Your task to perform on an android device: turn off picture-in-picture Image 0: 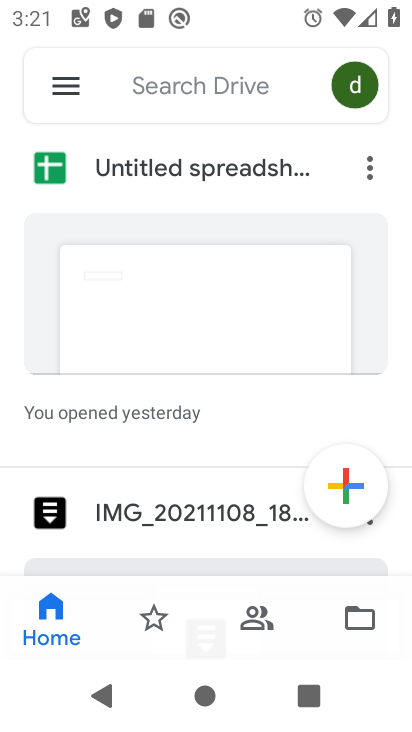
Step 0: press home button
Your task to perform on an android device: turn off picture-in-picture Image 1: 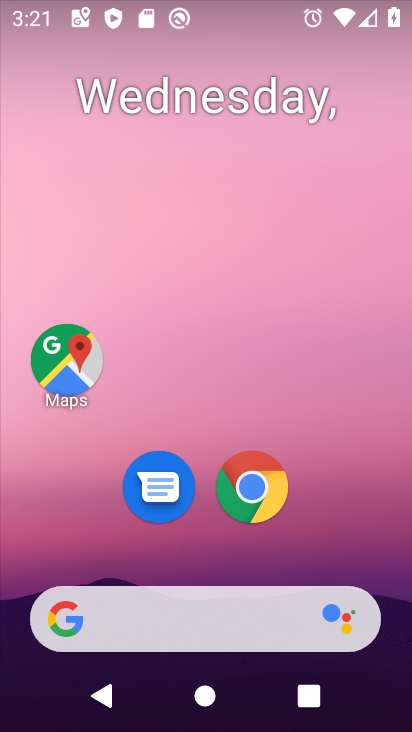
Step 1: drag from (363, 550) to (334, 134)
Your task to perform on an android device: turn off picture-in-picture Image 2: 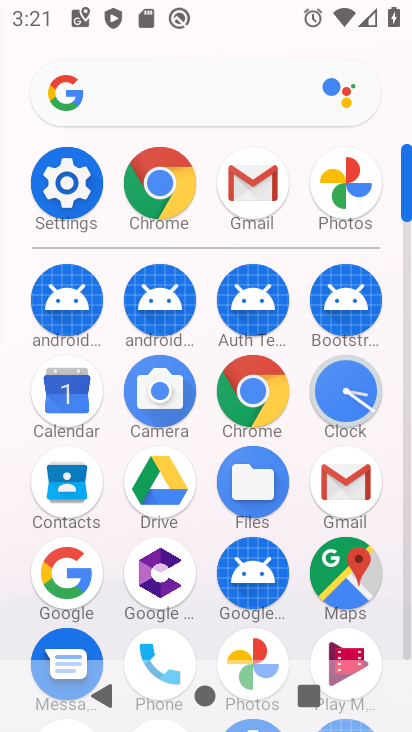
Step 2: click (72, 204)
Your task to perform on an android device: turn off picture-in-picture Image 3: 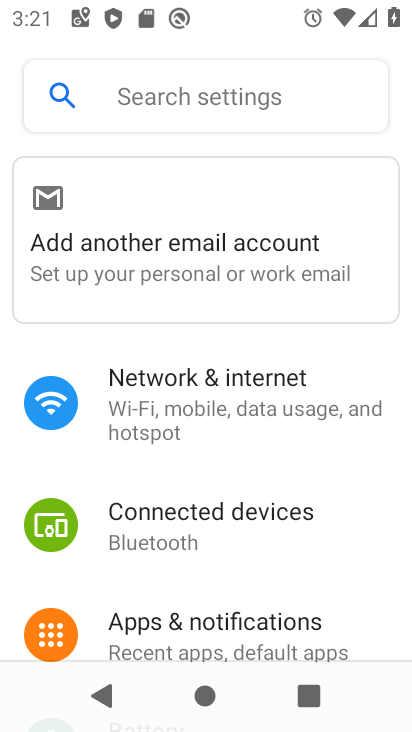
Step 3: drag from (358, 495) to (348, 349)
Your task to perform on an android device: turn off picture-in-picture Image 4: 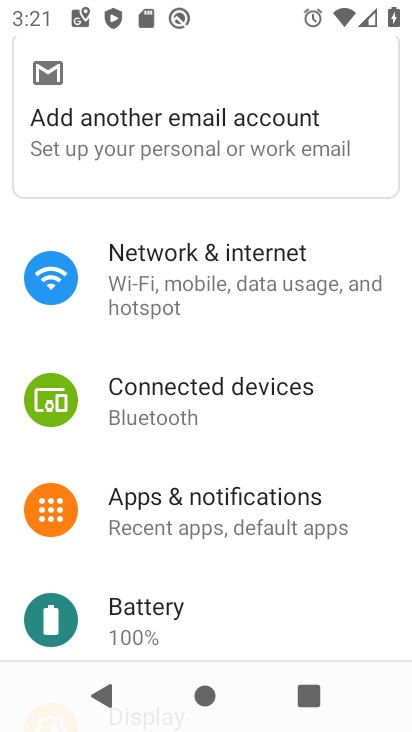
Step 4: drag from (361, 521) to (350, 377)
Your task to perform on an android device: turn off picture-in-picture Image 5: 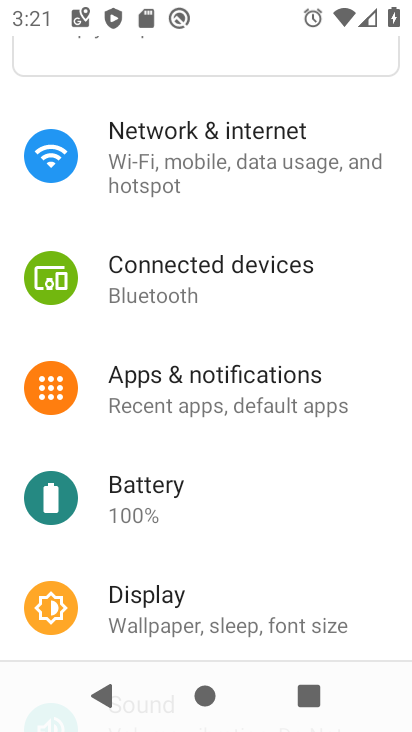
Step 5: drag from (360, 509) to (353, 377)
Your task to perform on an android device: turn off picture-in-picture Image 6: 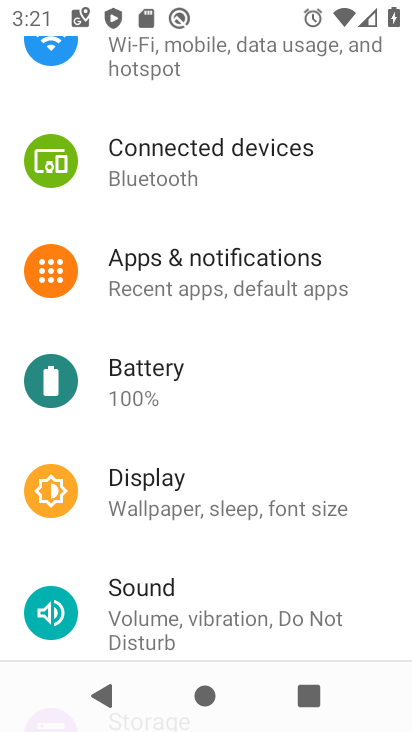
Step 6: drag from (371, 546) to (367, 431)
Your task to perform on an android device: turn off picture-in-picture Image 7: 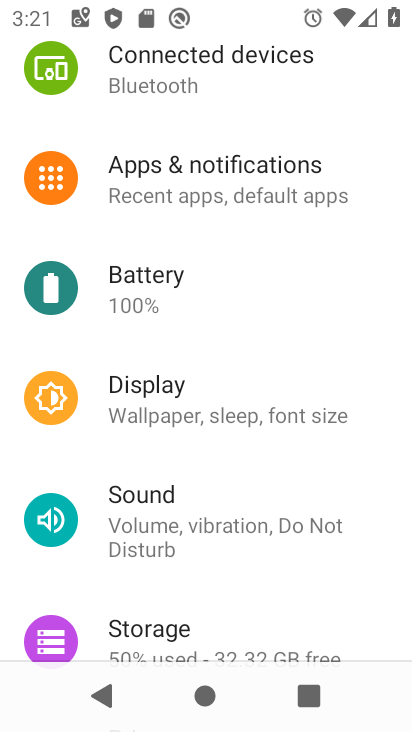
Step 7: drag from (342, 297) to (362, 441)
Your task to perform on an android device: turn off picture-in-picture Image 8: 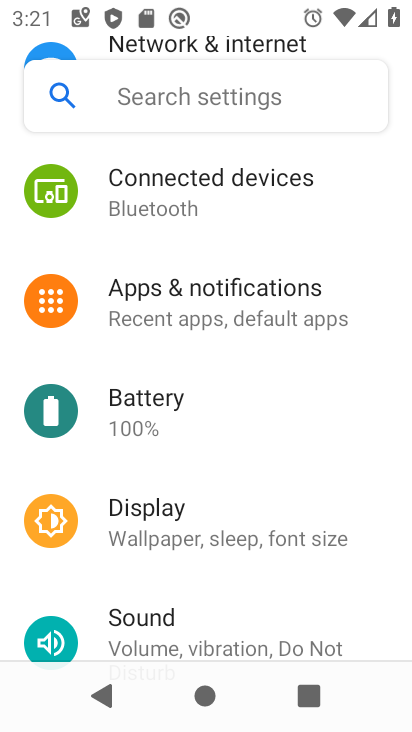
Step 8: drag from (362, 240) to (363, 453)
Your task to perform on an android device: turn off picture-in-picture Image 9: 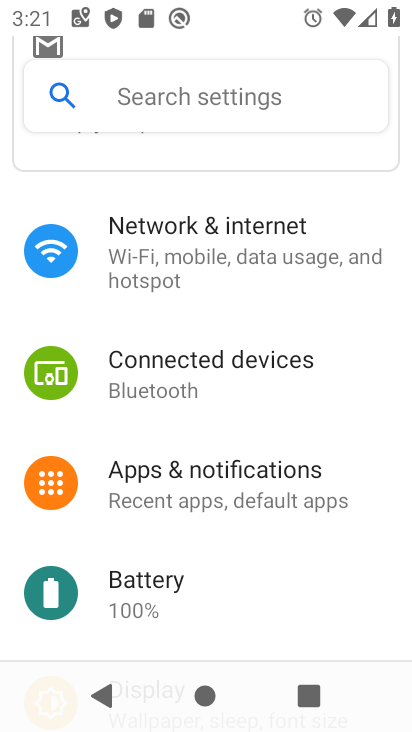
Step 9: click (287, 479)
Your task to perform on an android device: turn off picture-in-picture Image 10: 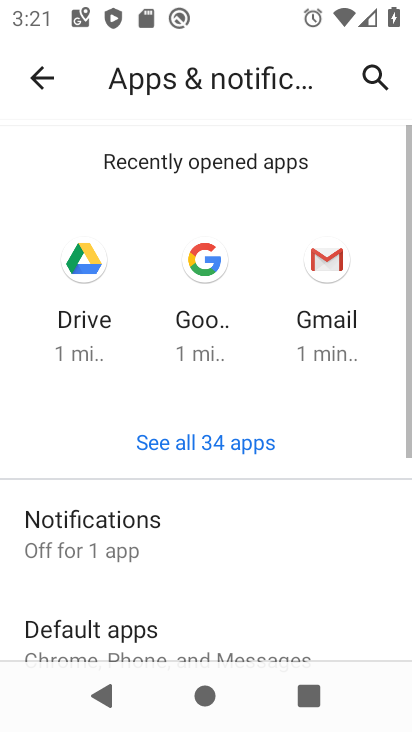
Step 10: drag from (252, 537) to (248, 352)
Your task to perform on an android device: turn off picture-in-picture Image 11: 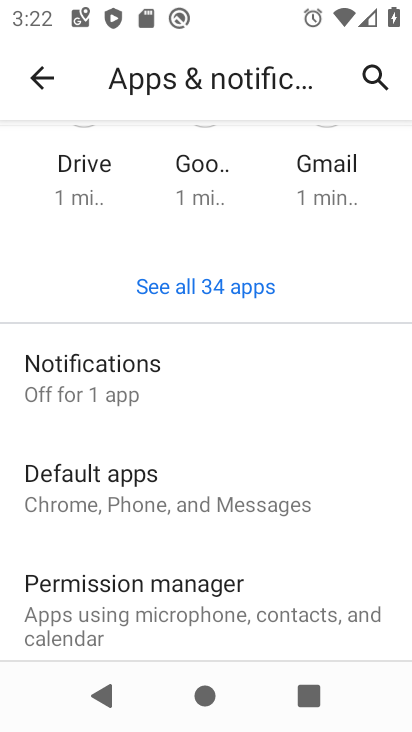
Step 11: drag from (283, 513) to (286, 348)
Your task to perform on an android device: turn off picture-in-picture Image 12: 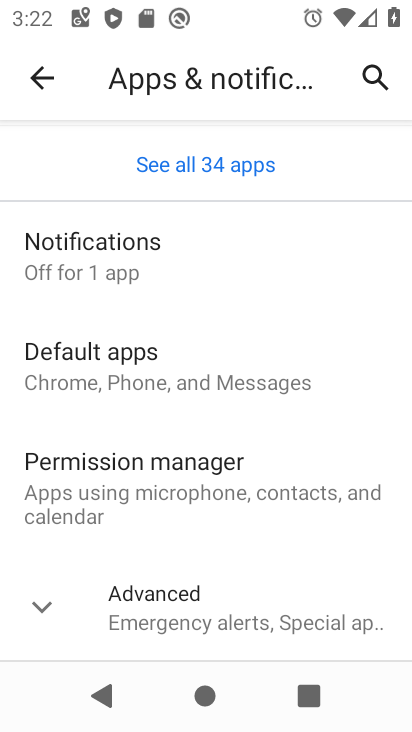
Step 12: click (90, 262)
Your task to perform on an android device: turn off picture-in-picture Image 13: 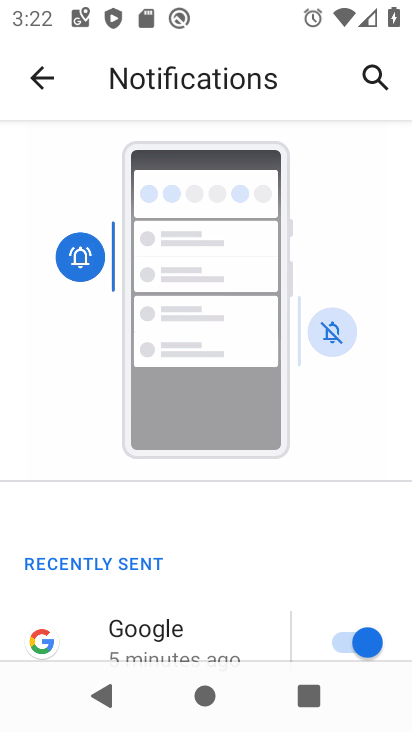
Step 13: drag from (287, 497) to (283, 332)
Your task to perform on an android device: turn off picture-in-picture Image 14: 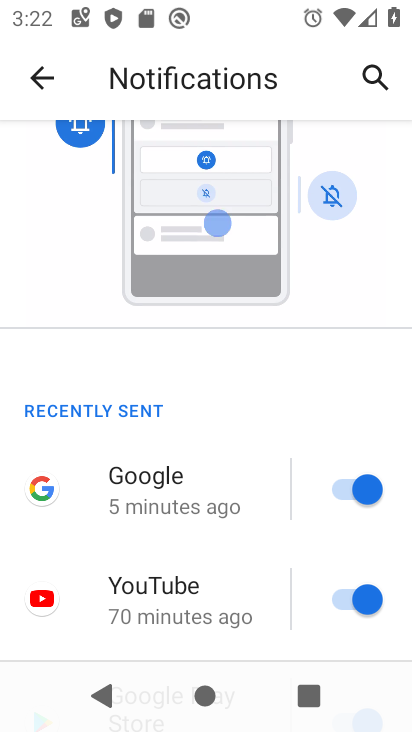
Step 14: drag from (259, 544) to (254, 333)
Your task to perform on an android device: turn off picture-in-picture Image 15: 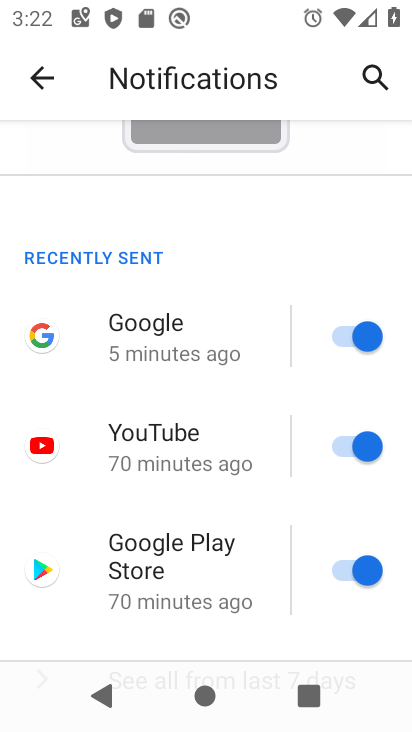
Step 15: drag from (267, 578) to (264, 371)
Your task to perform on an android device: turn off picture-in-picture Image 16: 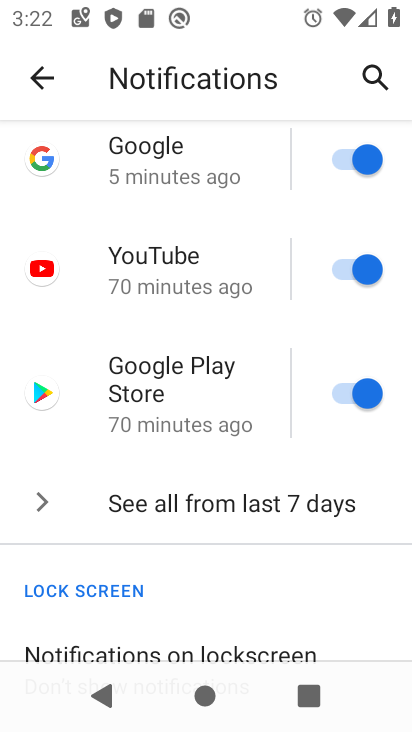
Step 16: drag from (256, 577) to (242, 405)
Your task to perform on an android device: turn off picture-in-picture Image 17: 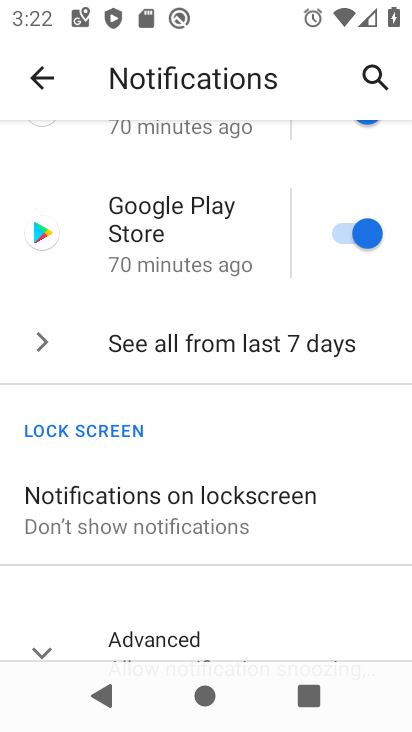
Step 17: drag from (252, 212) to (249, 379)
Your task to perform on an android device: turn off picture-in-picture Image 18: 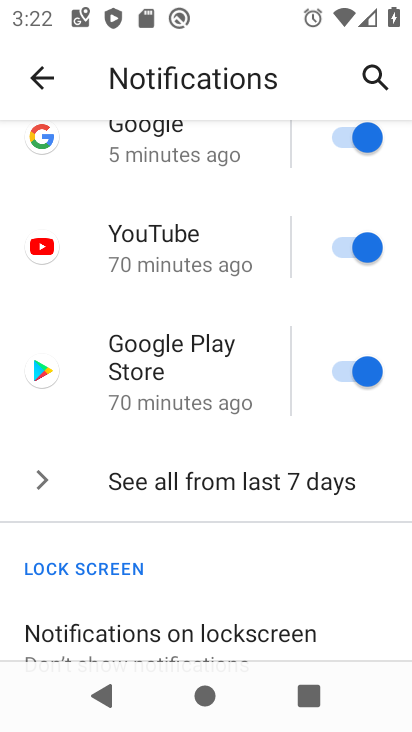
Step 18: click (43, 85)
Your task to perform on an android device: turn off picture-in-picture Image 19: 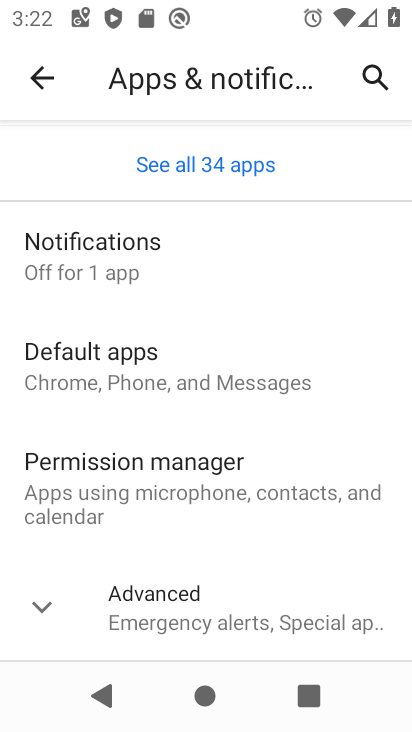
Step 19: click (218, 607)
Your task to perform on an android device: turn off picture-in-picture Image 20: 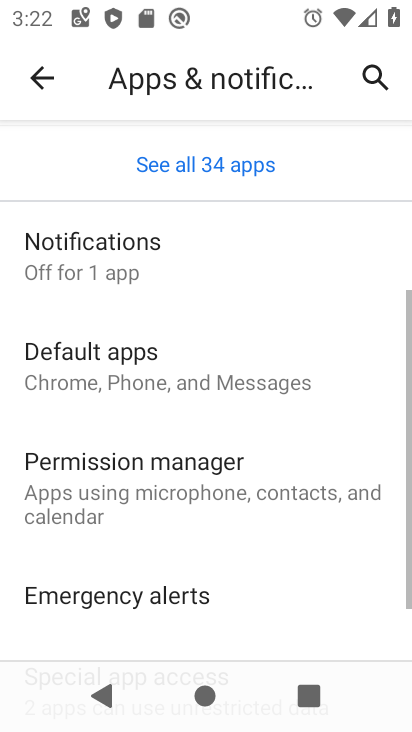
Step 20: drag from (314, 549) to (313, 252)
Your task to perform on an android device: turn off picture-in-picture Image 21: 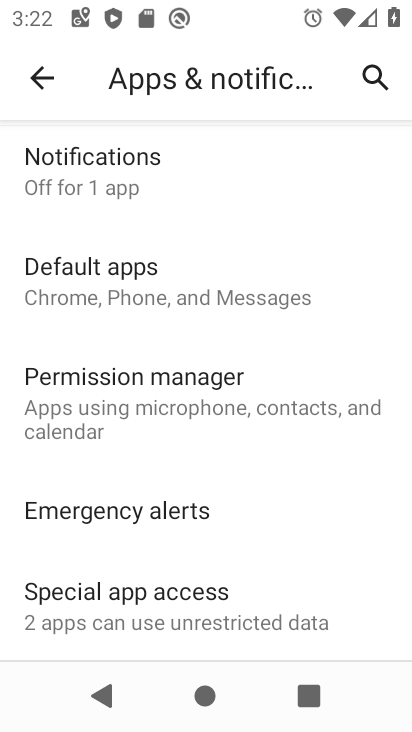
Step 21: click (198, 609)
Your task to perform on an android device: turn off picture-in-picture Image 22: 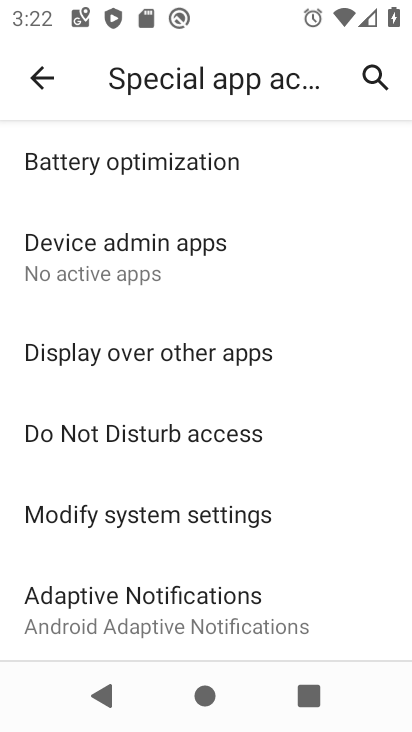
Step 22: drag from (345, 559) to (360, 317)
Your task to perform on an android device: turn off picture-in-picture Image 23: 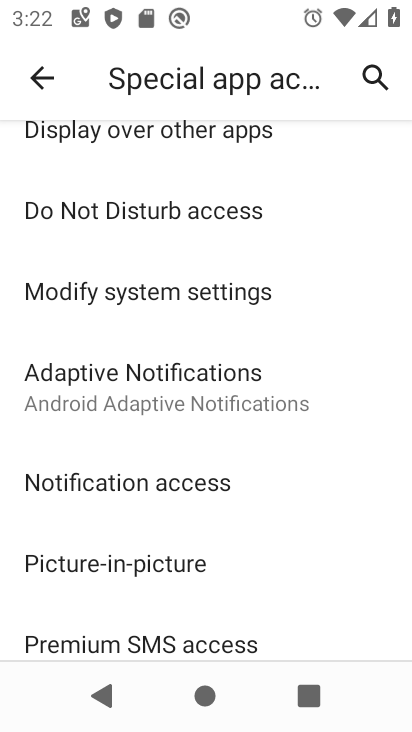
Step 23: drag from (313, 544) to (338, 333)
Your task to perform on an android device: turn off picture-in-picture Image 24: 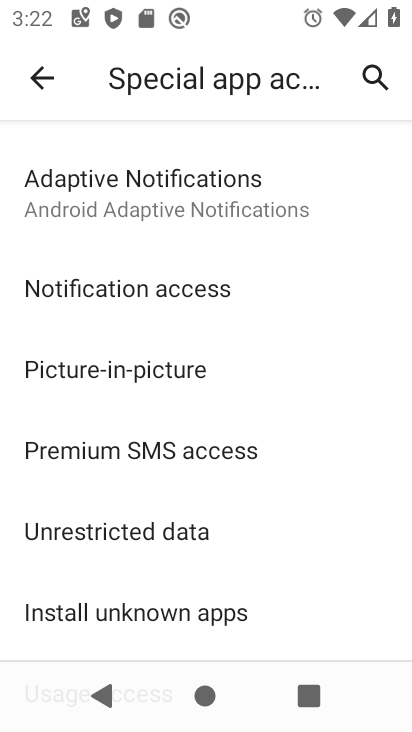
Step 24: click (193, 360)
Your task to perform on an android device: turn off picture-in-picture Image 25: 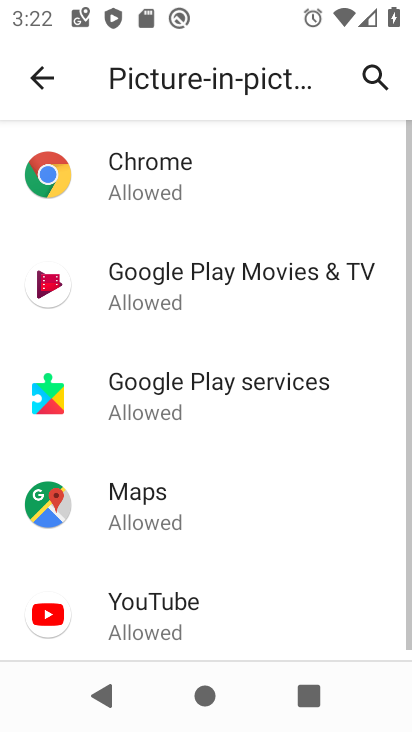
Step 25: drag from (278, 546) to (282, 357)
Your task to perform on an android device: turn off picture-in-picture Image 26: 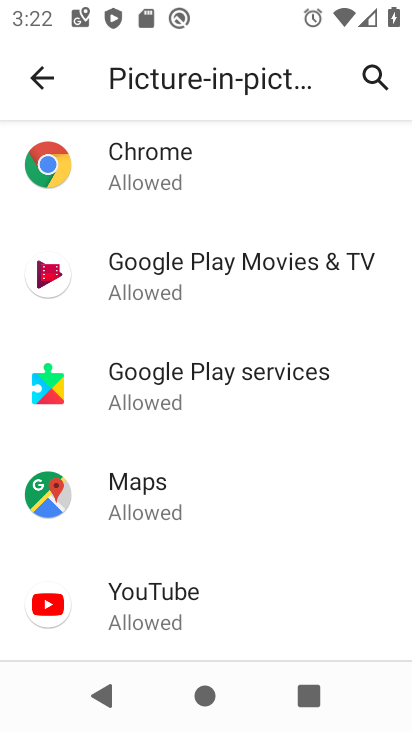
Step 26: click (179, 611)
Your task to perform on an android device: turn off picture-in-picture Image 27: 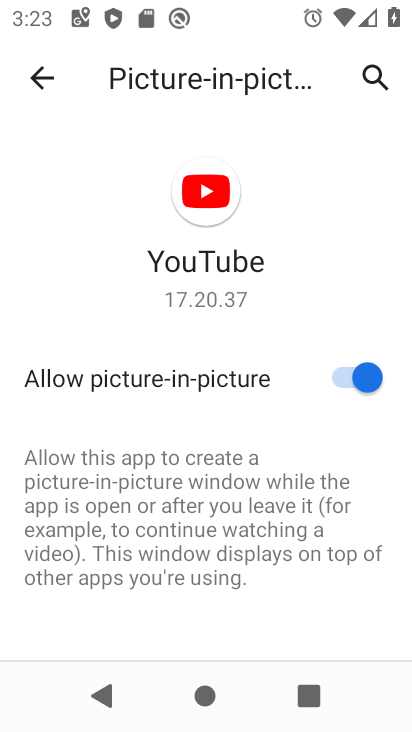
Step 27: click (363, 377)
Your task to perform on an android device: turn off picture-in-picture Image 28: 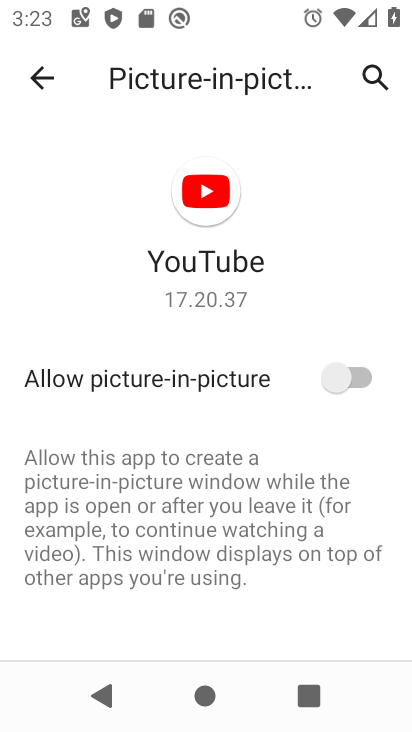
Step 28: task complete